Your task to perform on an android device: Search for vegetarian restaurants on Maps Image 0: 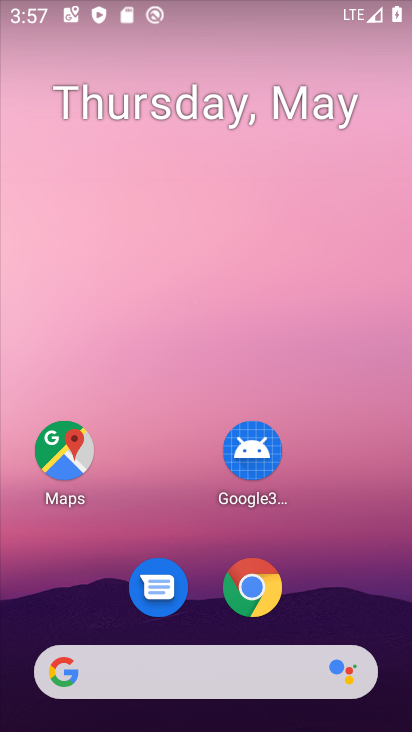
Step 0: drag from (271, 624) to (173, 163)
Your task to perform on an android device: Search for vegetarian restaurants on Maps Image 1: 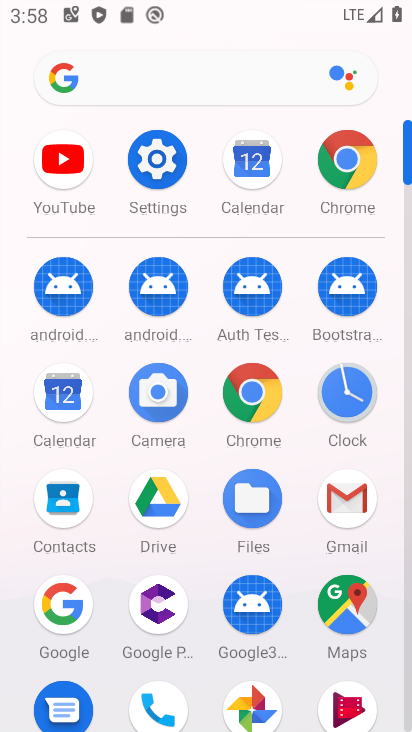
Step 1: click (329, 607)
Your task to perform on an android device: Search for vegetarian restaurants on Maps Image 2: 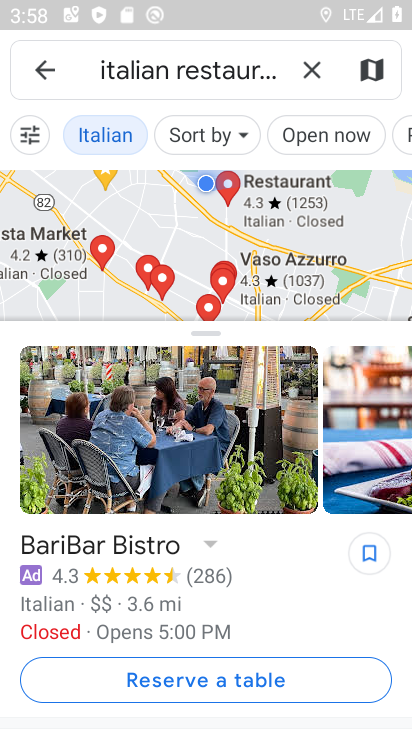
Step 2: click (320, 68)
Your task to perform on an android device: Search for vegetarian restaurants on Maps Image 3: 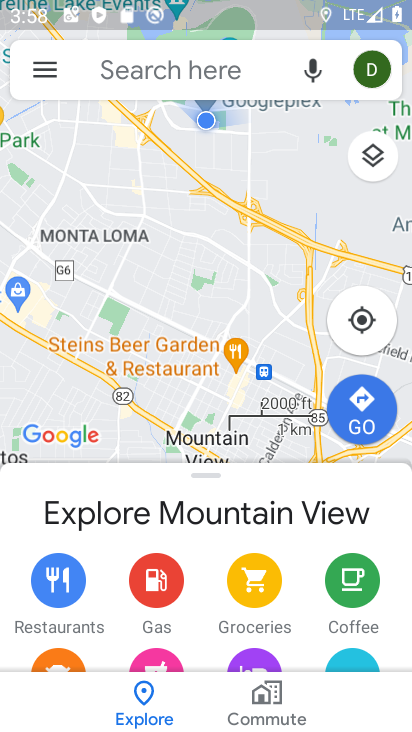
Step 3: click (248, 81)
Your task to perform on an android device: Search for vegetarian restaurants on Maps Image 4: 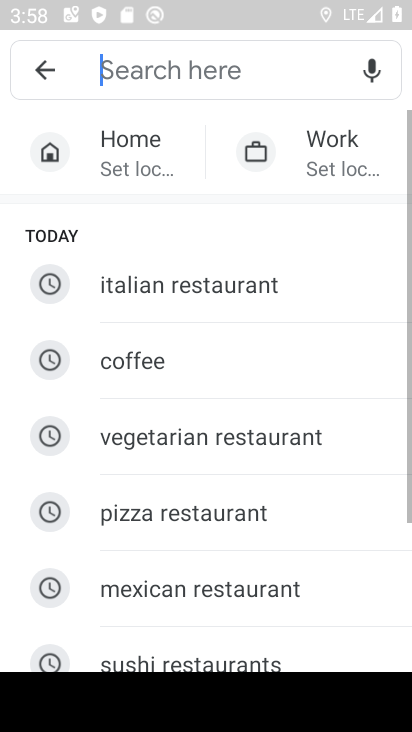
Step 4: click (260, 441)
Your task to perform on an android device: Search for vegetarian restaurants on Maps Image 5: 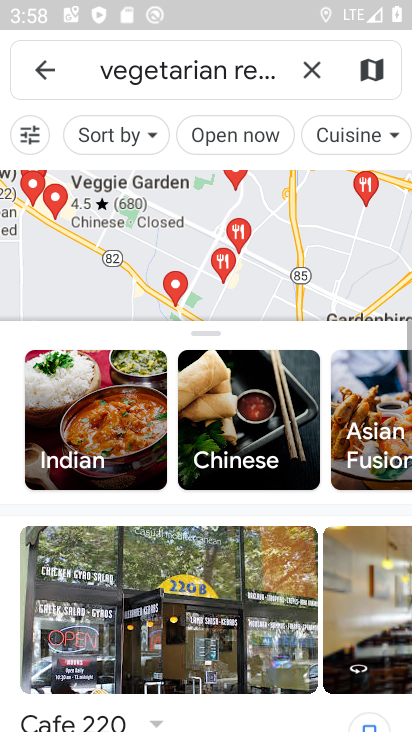
Step 5: task complete